Your task to perform on an android device: turn off location Image 0: 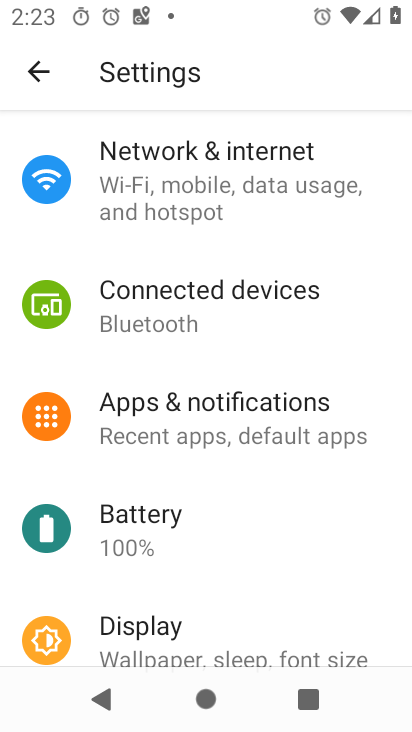
Step 0: drag from (331, 535) to (339, 179)
Your task to perform on an android device: turn off location Image 1: 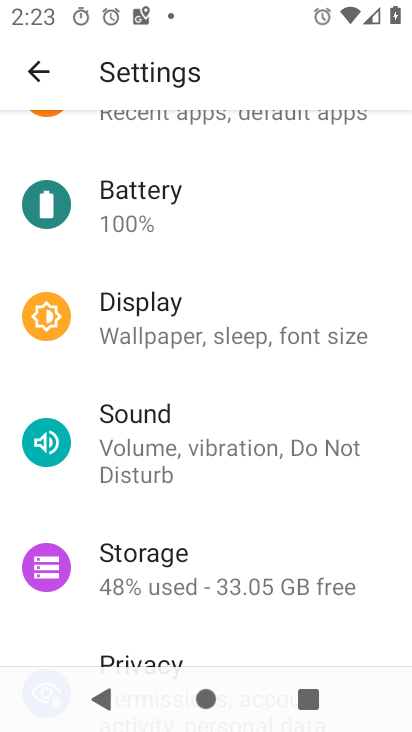
Step 1: drag from (244, 528) to (253, 178)
Your task to perform on an android device: turn off location Image 2: 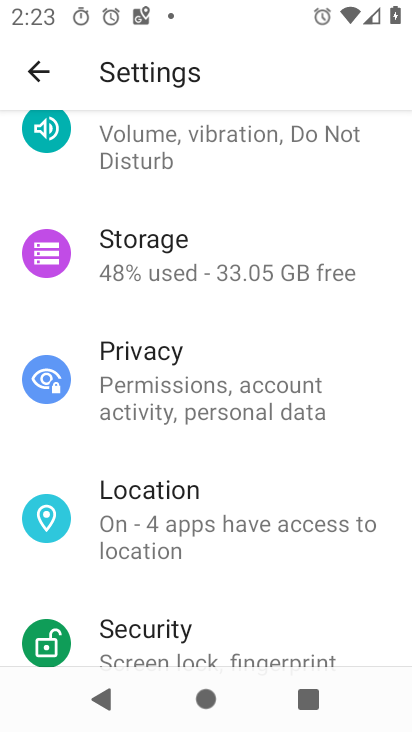
Step 2: click (158, 508)
Your task to perform on an android device: turn off location Image 3: 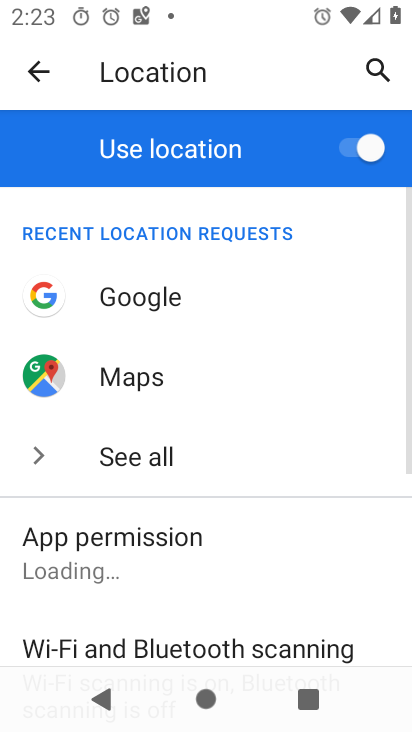
Step 3: click (359, 158)
Your task to perform on an android device: turn off location Image 4: 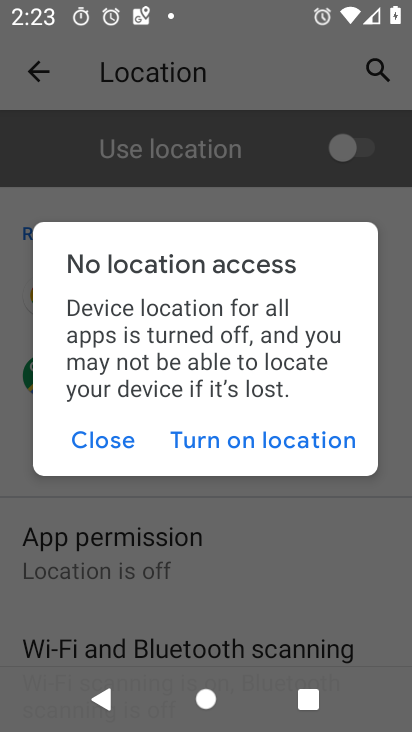
Step 4: click (97, 438)
Your task to perform on an android device: turn off location Image 5: 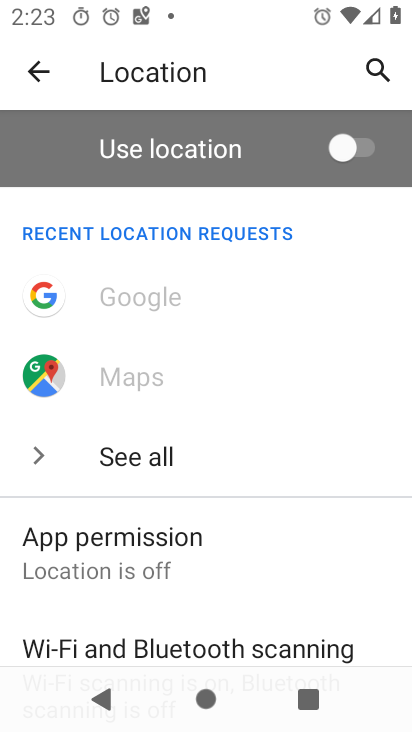
Step 5: task complete